Your task to perform on an android device: change the upload size in google photos Image 0: 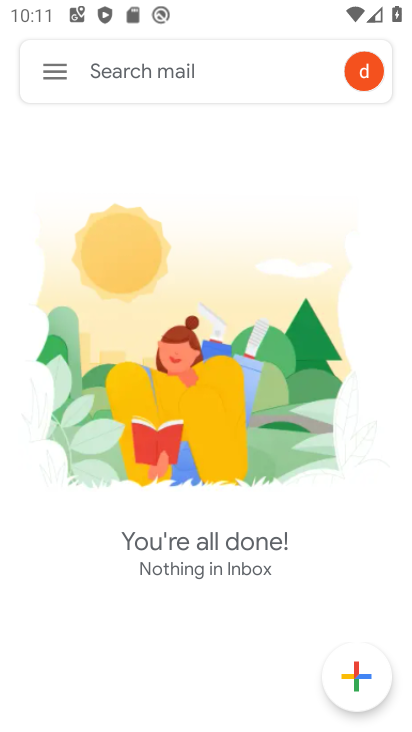
Step 0: press home button
Your task to perform on an android device: change the upload size in google photos Image 1: 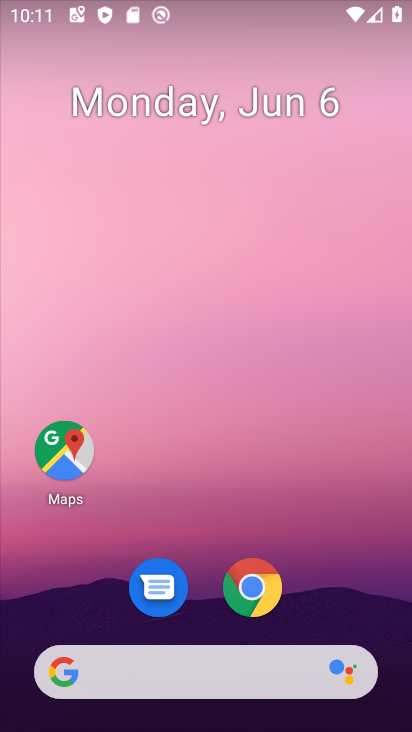
Step 1: drag from (288, 719) to (279, 1)
Your task to perform on an android device: change the upload size in google photos Image 2: 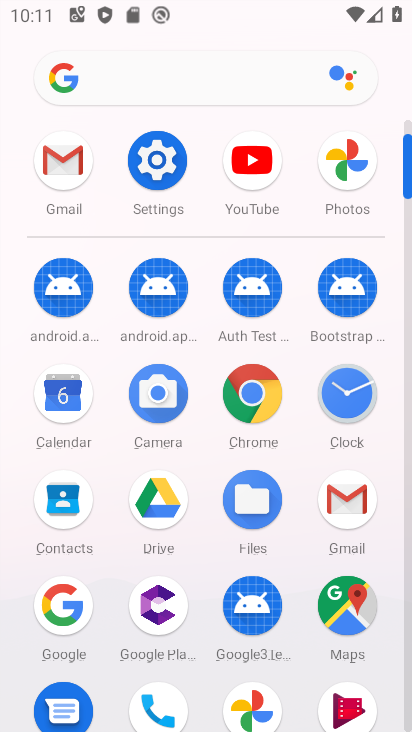
Step 2: click (346, 150)
Your task to perform on an android device: change the upload size in google photos Image 3: 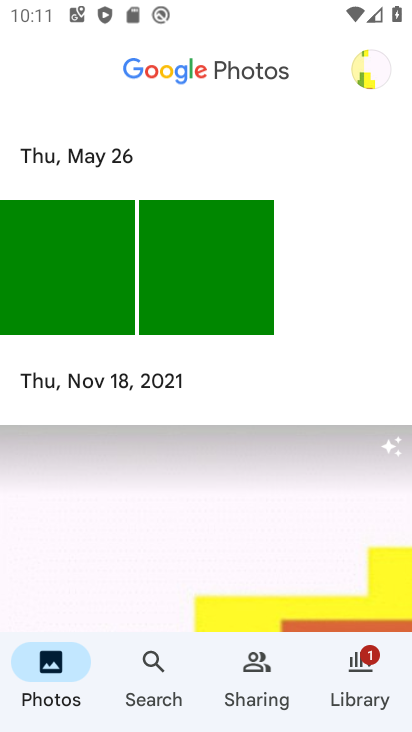
Step 3: click (355, 71)
Your task to perform on an android device: change the upload size in google photos Image 4: 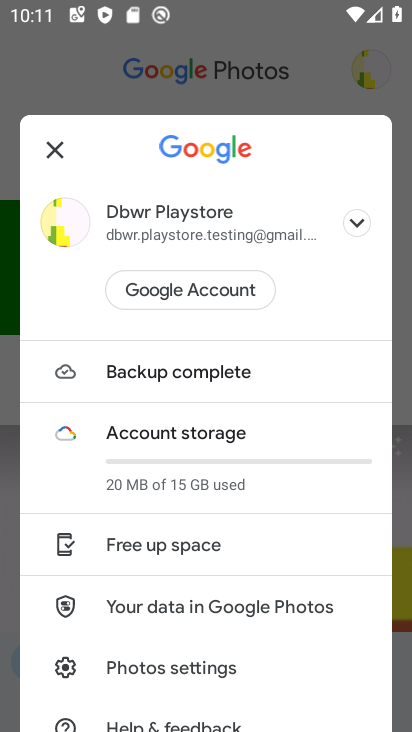
Step 4: drag from (161, 678) to (241, 285)
Your task to perform on an android device: change the upload size in google photos Image 5: 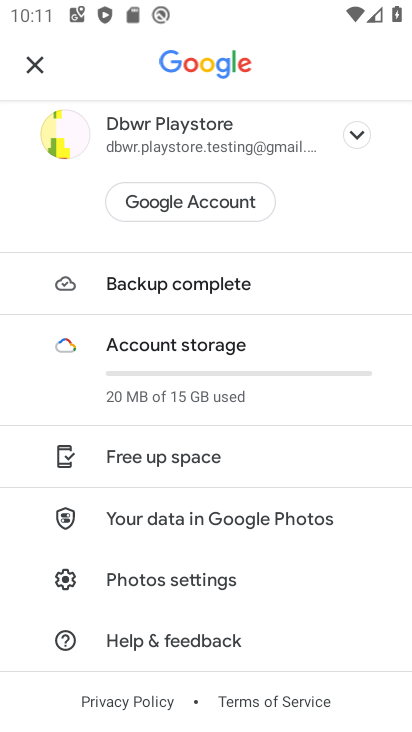
Step 5: click (113, 576)
Your task to perform on an android device: change the upload size in google photos Image 6: 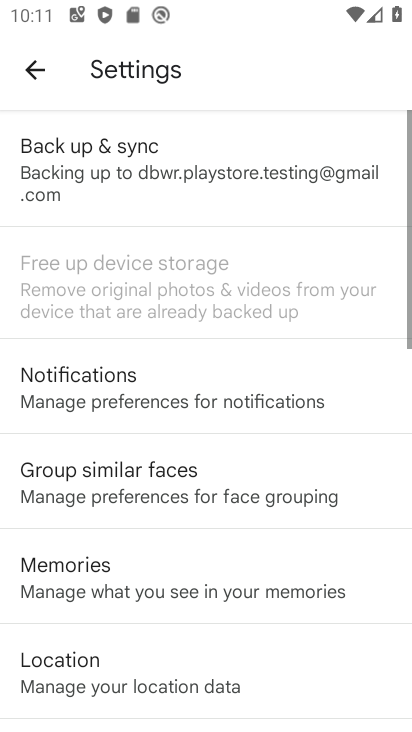
Step 6: click (292, 171)
Your task to perform on an android device: change the upload size in google photos Image 7: 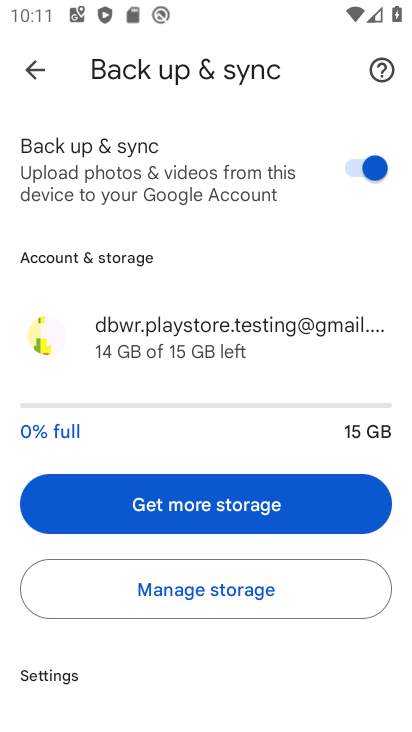
Step 7: drag from (235, 588) to (264, 58)
Your task to perform on an android device: change the upload size in google photos Image 8: 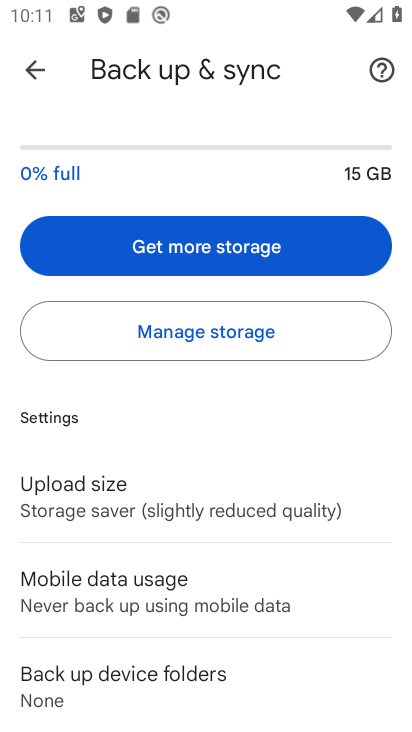
Step 8: click (127, 515)
Your task to perform on an android device: change the upload size in google photos Image 9: 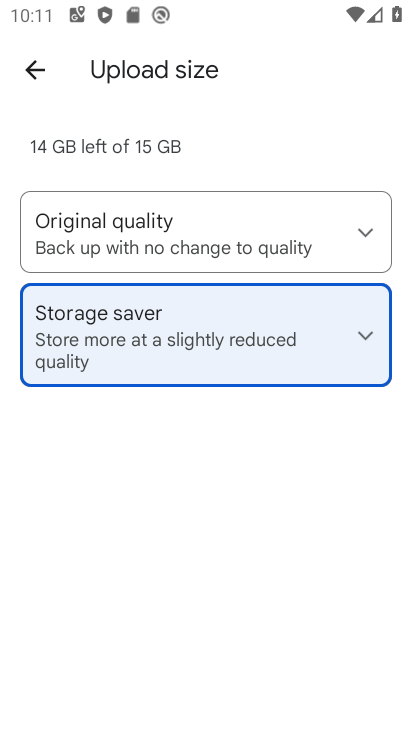
Step 9: click (230, 254)
Your task to perform on an android device: change the upload size in google photos Image 10: 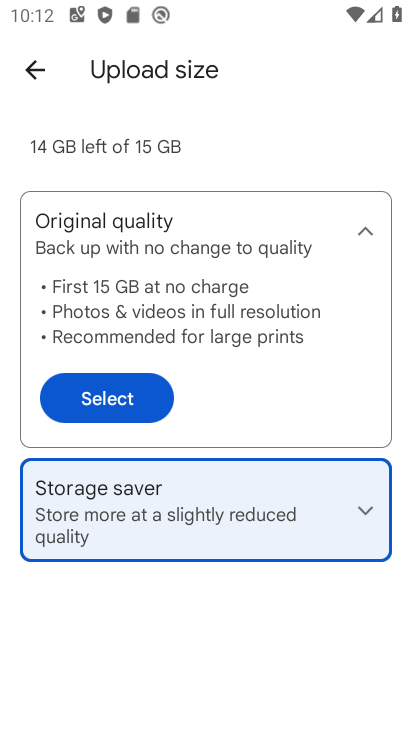
Step 10: click (140, 400)
Your task to perform on an android device: change the upload size in google photos Image 11: 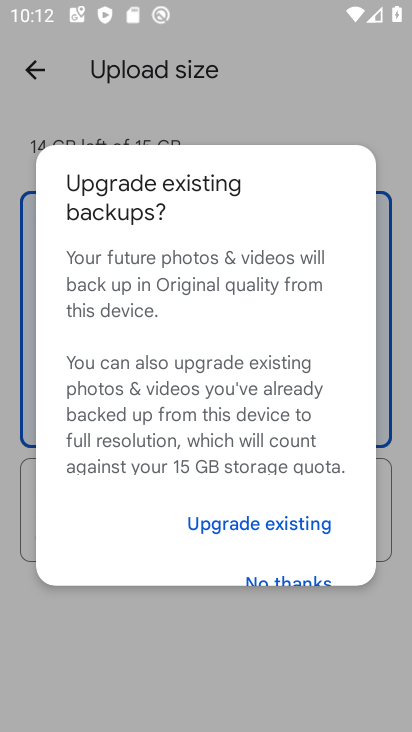
Step 11: drag from (294, 579) to (285, 208)
Your task to perform on an android device: change the upload size in google photos Image 12: 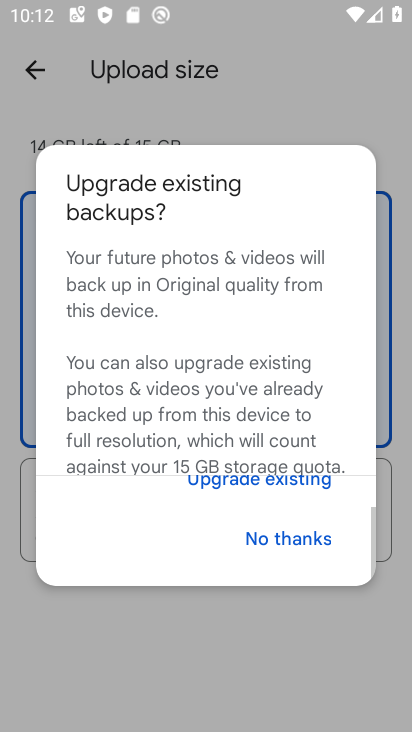
Step 12: click (297, 543)
Your task to perform on an android device: change the upload size in google photos Image 13: 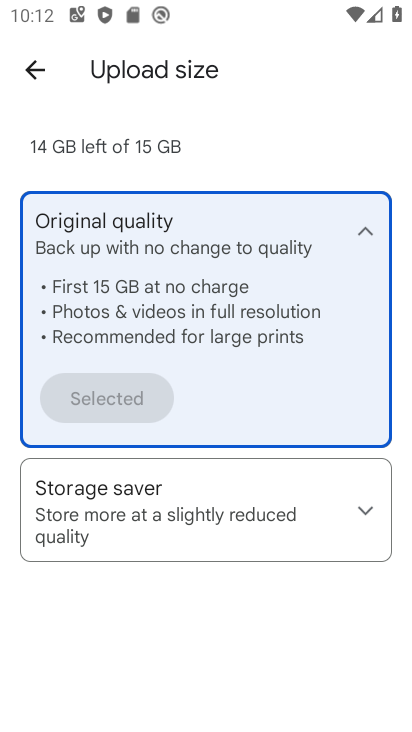
Step 13: task complete